Your task to perform on an android device: Search for Mexican restaurants on Maps Image 0: 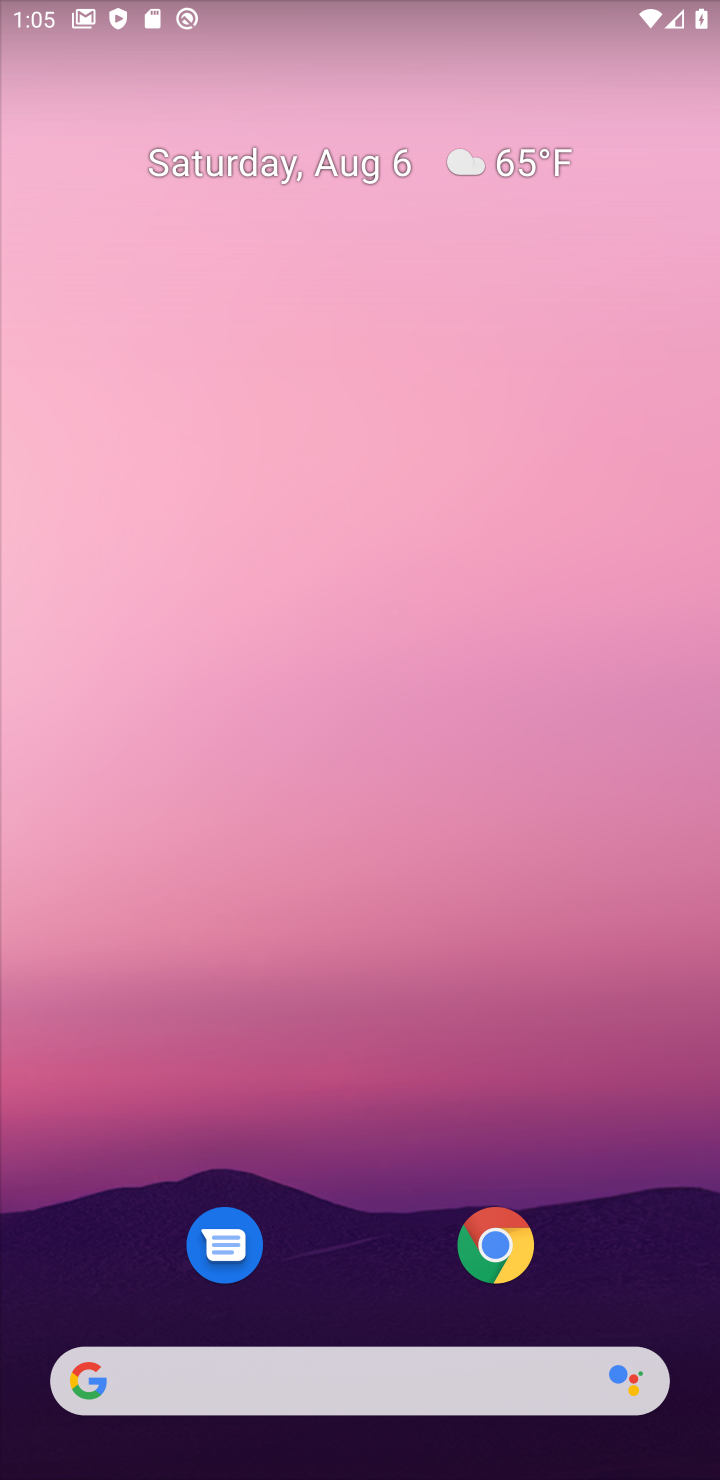
Step 0: drag from (330, 1476) to (446, 1046)
Your task to perform on an android device: Search for Mexican restaurants on Maps Image 1: 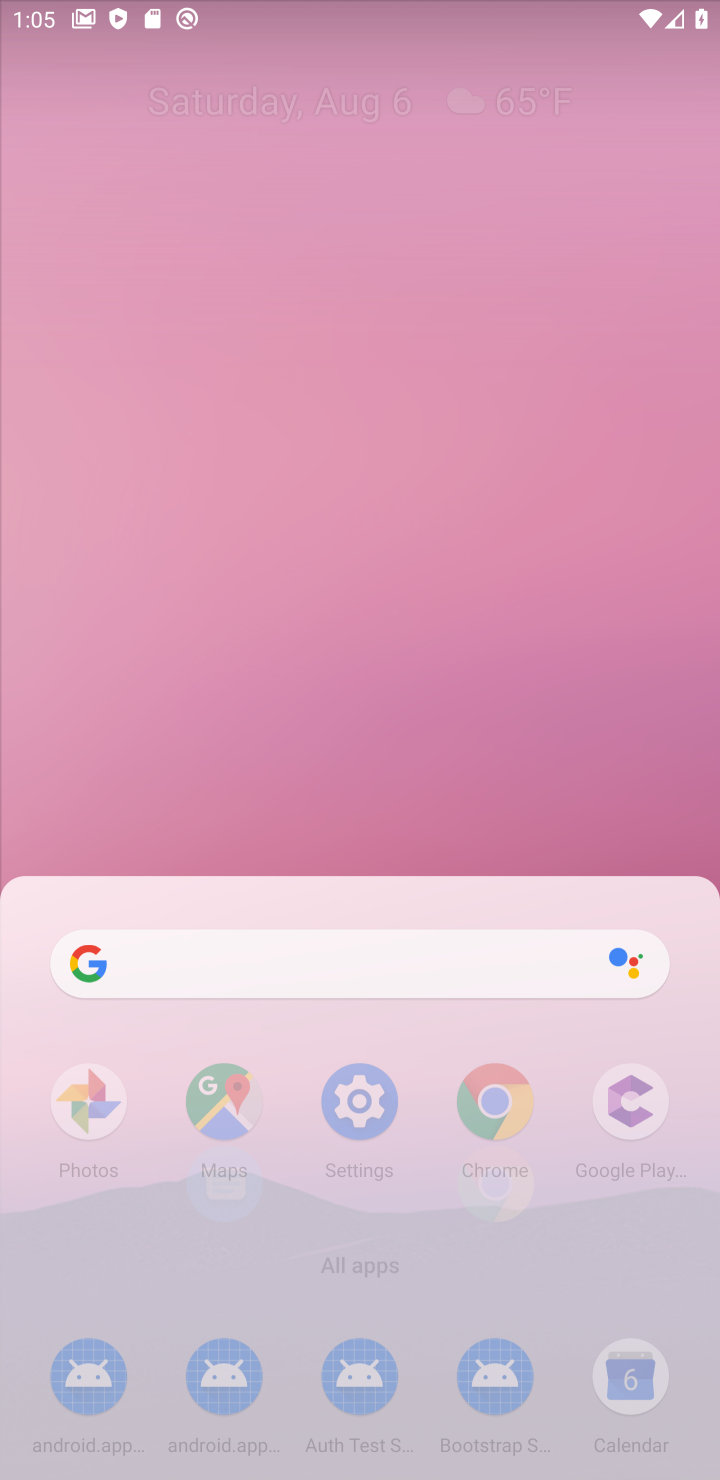
Step 1: drag from (357, 787) to (465, 418)
Your task to perform on an android device: Search for Mexican restaurants on Maps Image 2: 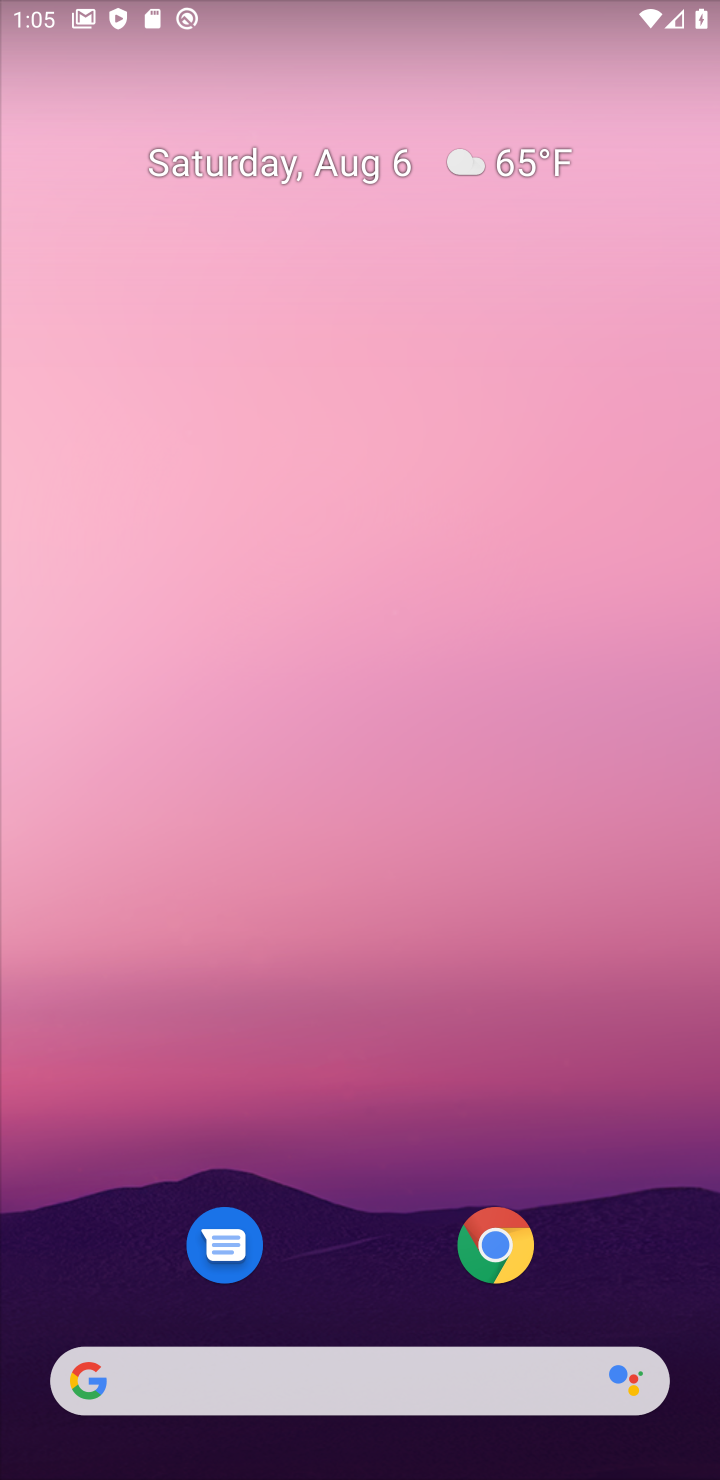
Step 2: drag from (341, 1136) to (231, 299)
Your task to perform on an android device: Search for Mexican restaurants on Maps Image 3: 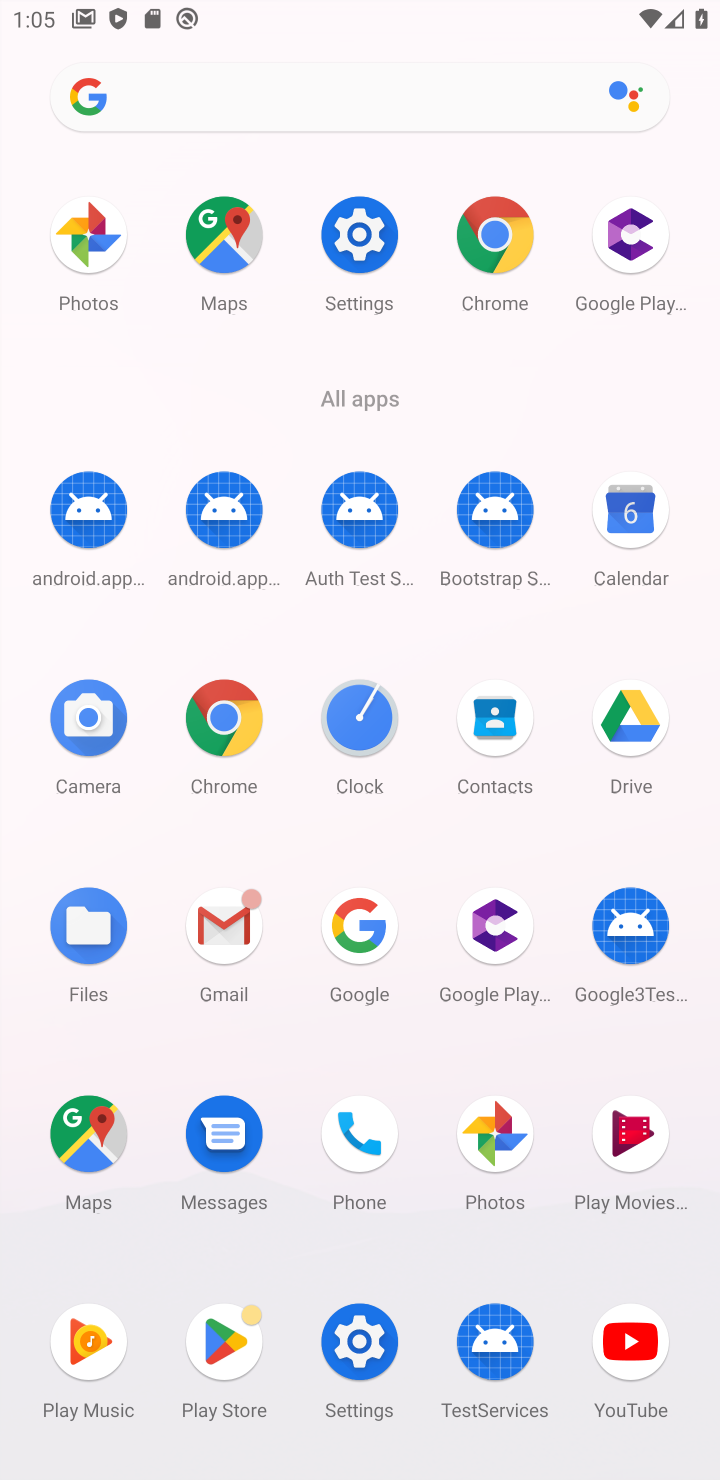
Step 3: click (69, 1132)
Your task to perform on an android device: Search for Mexican restaurants on Maps Image 4: 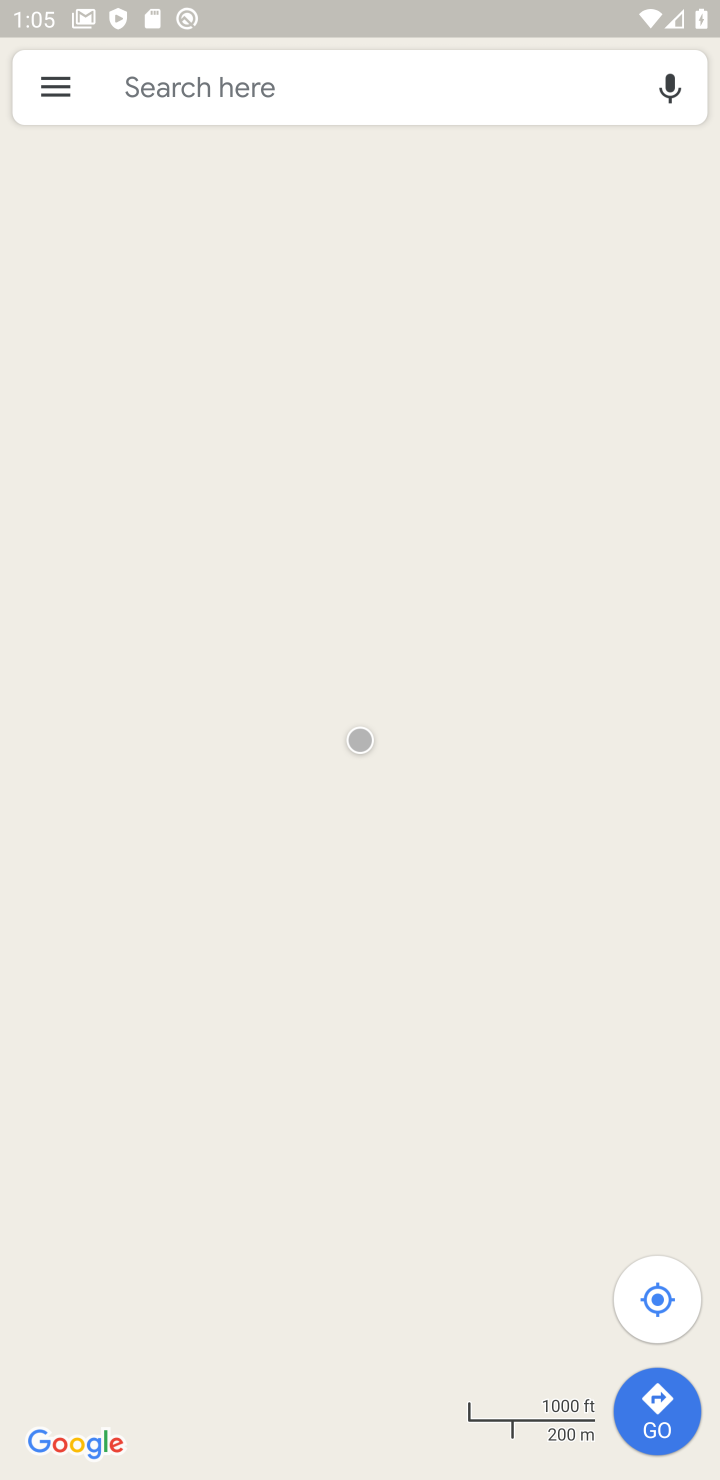
Step 4: click (341, 62)
Your task to perform on an android device: Search for Mexican restaurants on Maps Image 5: 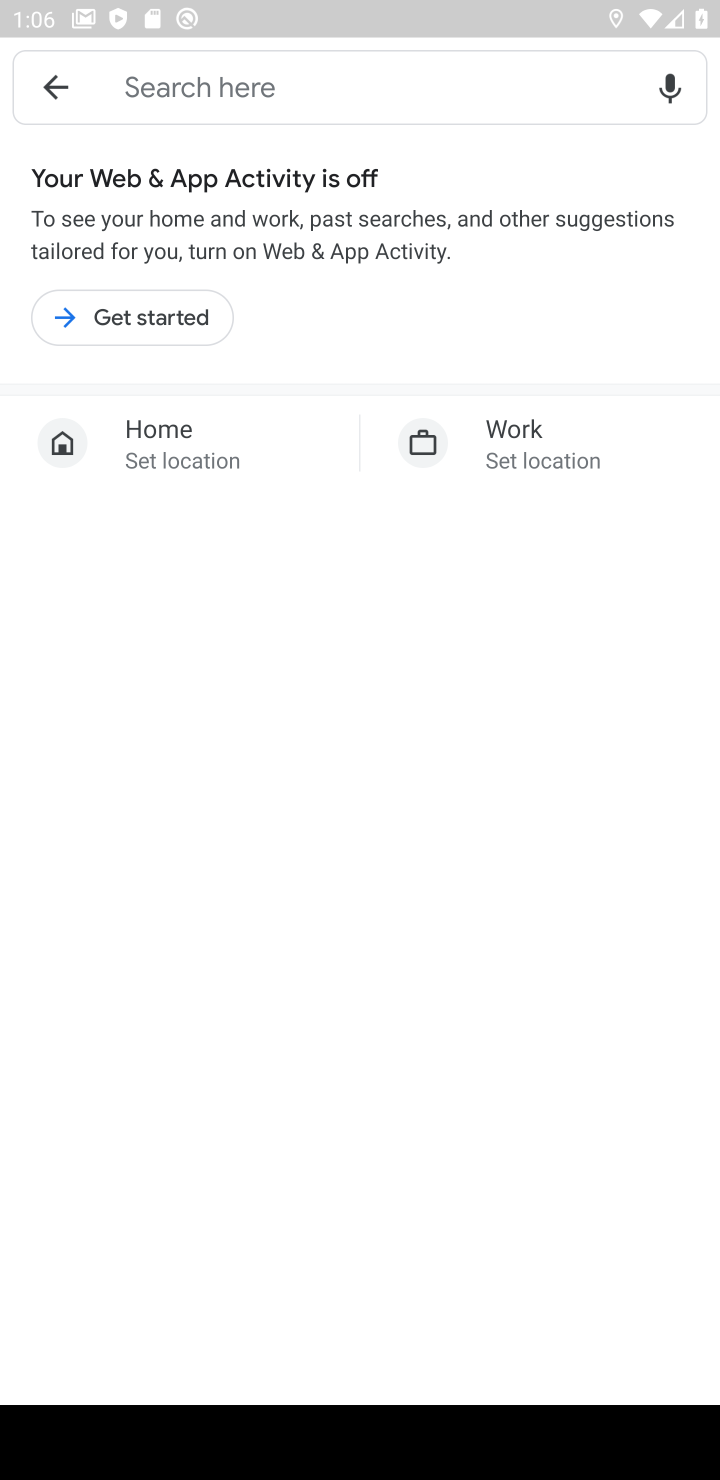
Step 5: type "Mexican restaurants"
Your task to perform on an android device: Search for Mexican restaurants on Maps Image 6: 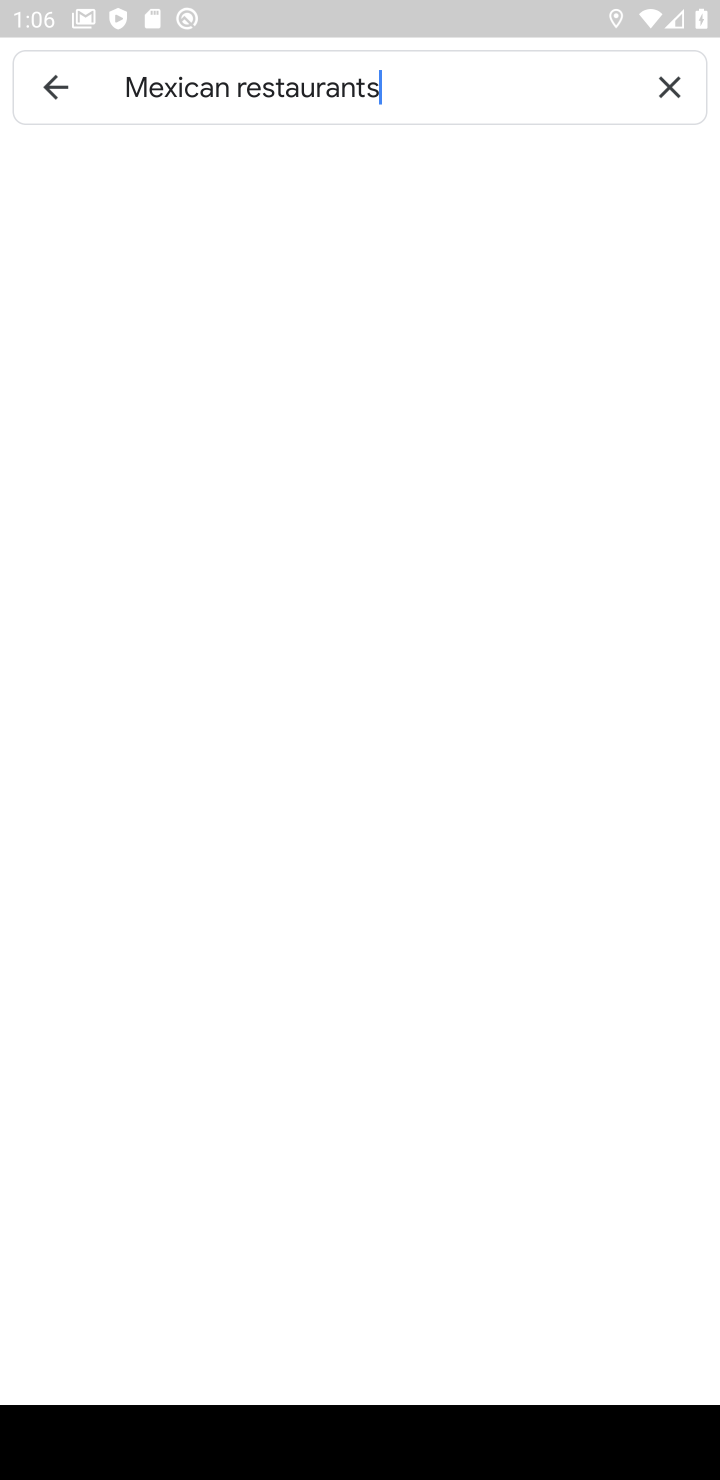
Step 6: press enter
Your task to perform on an android device: Search for Mexican restaurants on Maps Image 7: 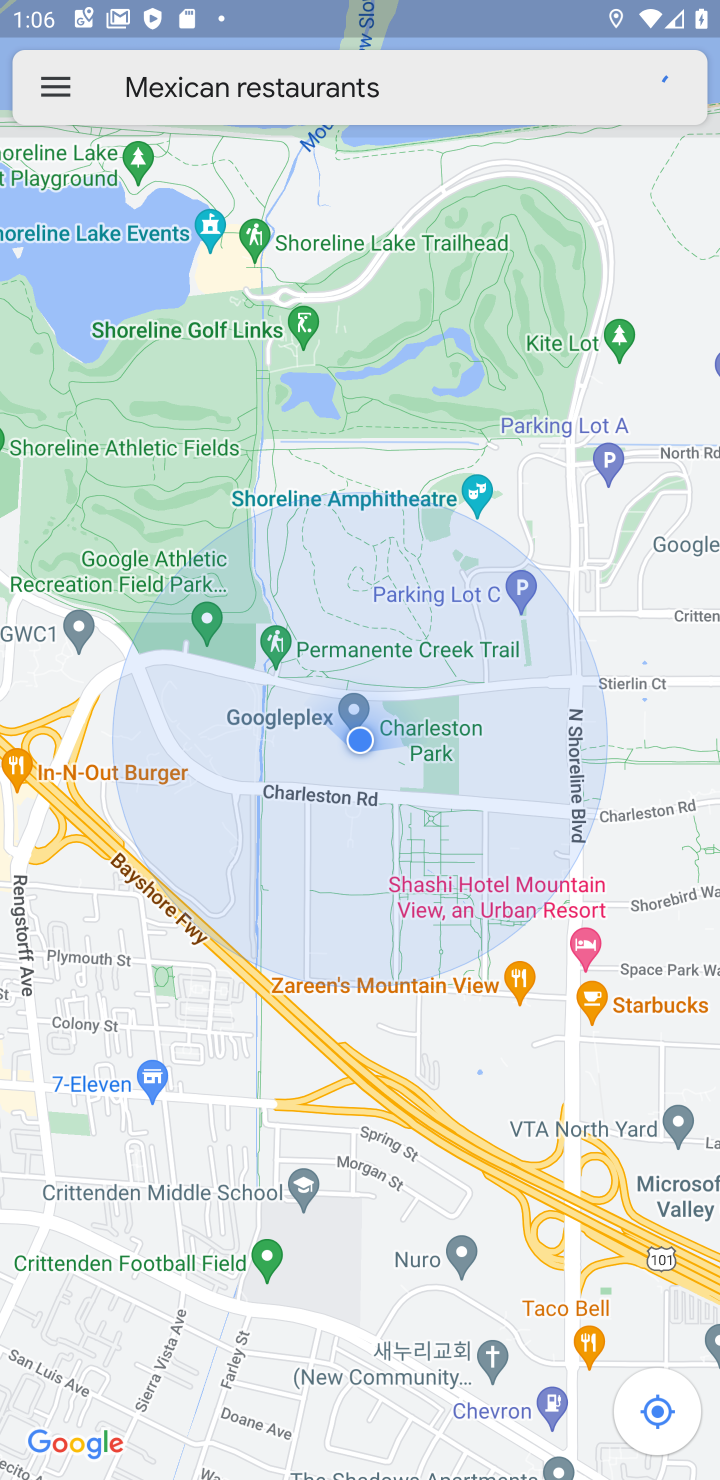
Step 7: task complete